Your task to perform on an android device: turn off sleep mode Image 0: 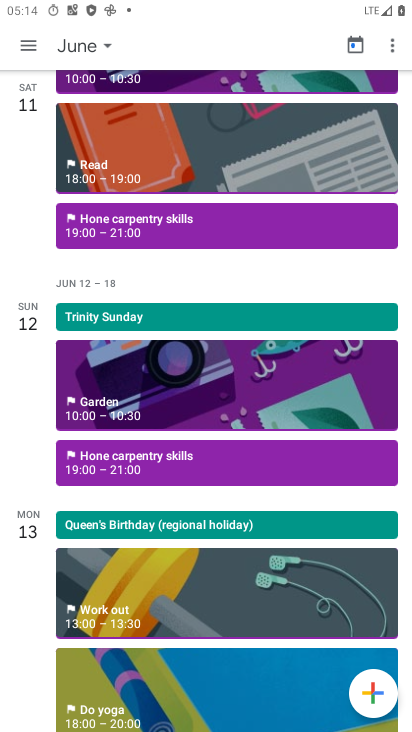
Step 0: press home button
Your task to perform on an android device: turn off sleep mode Image 1: 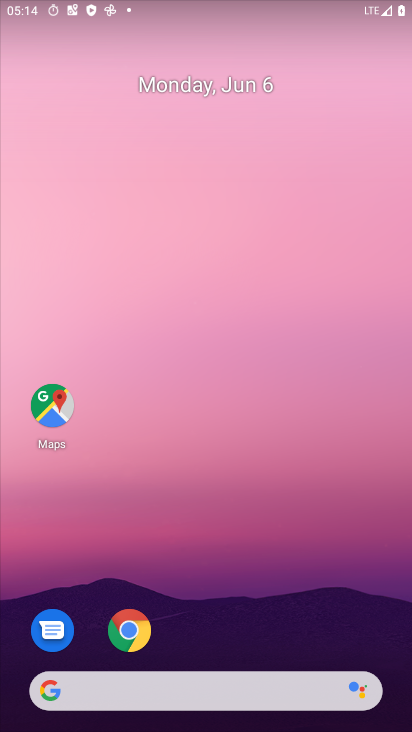
Step 1: drag from (284, 597) to (339, 5)
Your task to perform on an android device: turn off sleep mode Image 2: 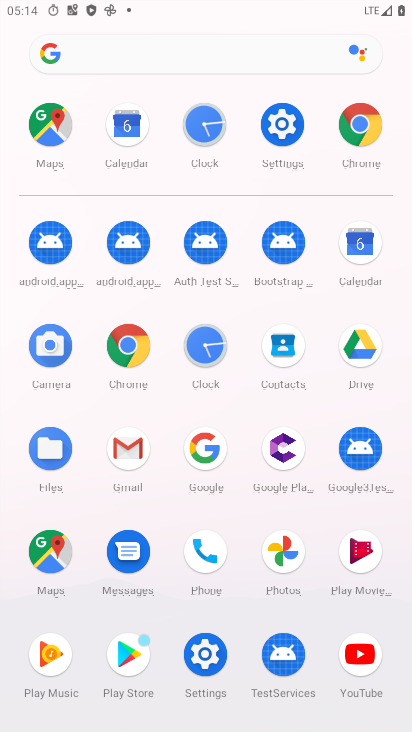
Step 2: click (200, 653)
Your task to perform on an android device: turn off sleep mode Image 3: 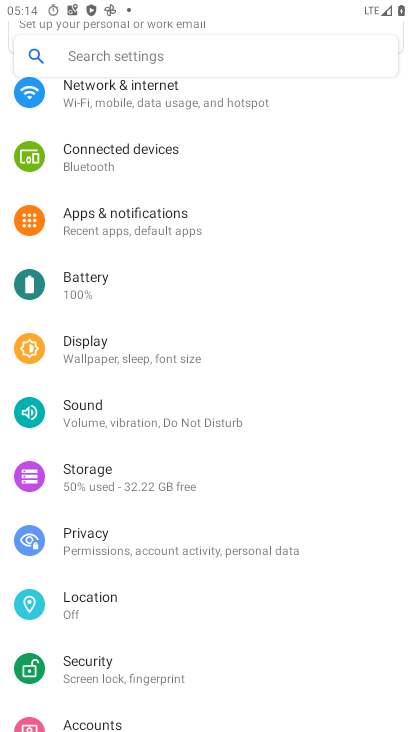
Step 3: click (153, 361)
Your task to perform on an android device: turn off sleep mode Image 4: 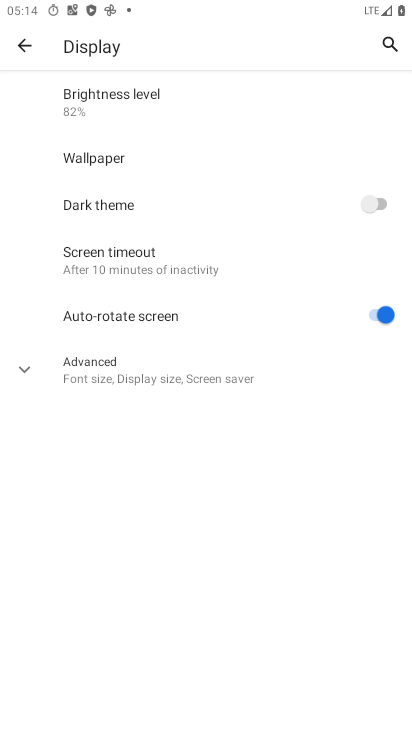
Step 4: task complete